Your task to perform on an android device: Go to CNN.com Image 0: 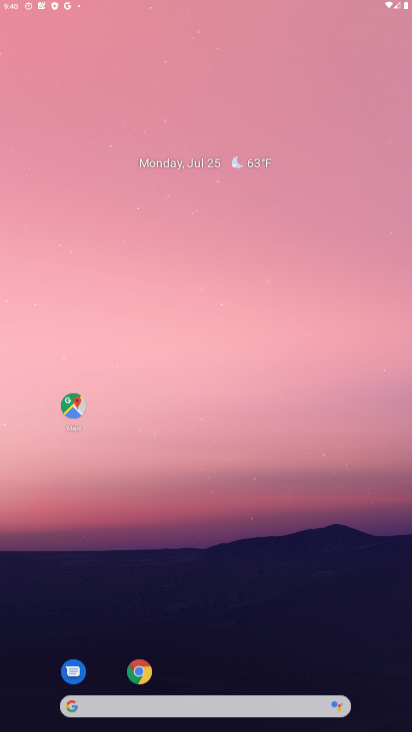
Step 0: click (295, 2)
Your task to perform on an android device: Go to CNN.com Image 1: 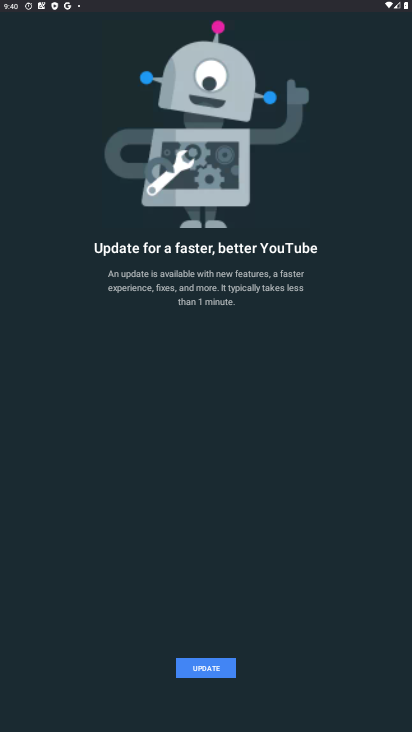
Step 1: press home button
Your task to perform on an android device: Go to CNN.com Image 2: 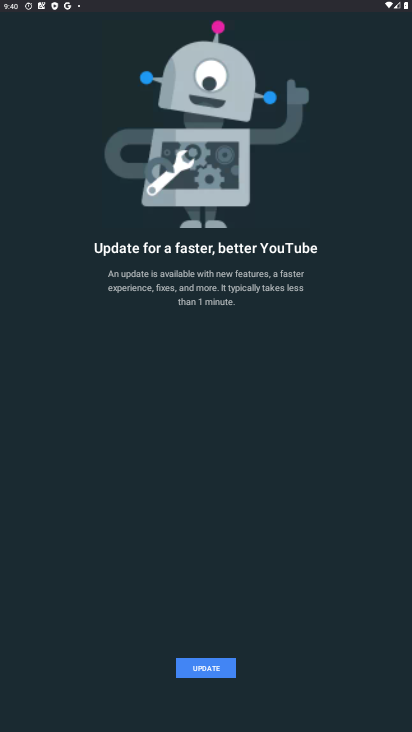
Step 2: press home button
Your task to perform on an android device: Go to CNN.com Image 3: 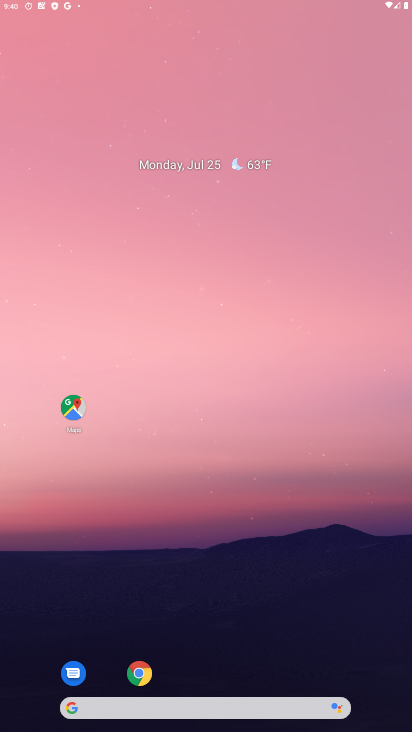
Step 3: drag from (156, 649) to (407, 6)
Your task to perform on an android device: Go to CNN.com Image 4: 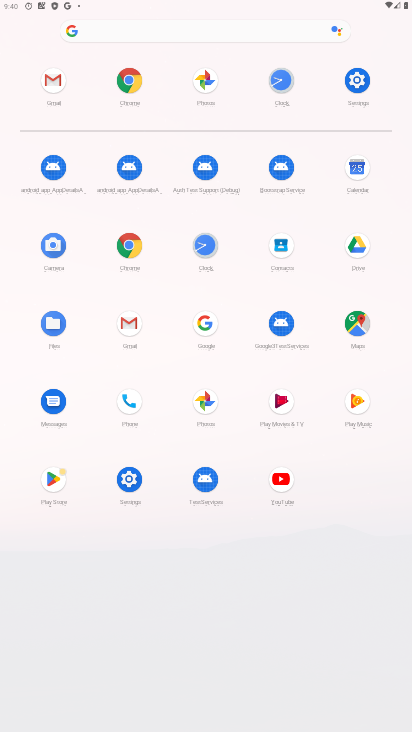
Step 4: click (128, 82)
Your task to perform on an android device: Go to CNN.com Image 5: 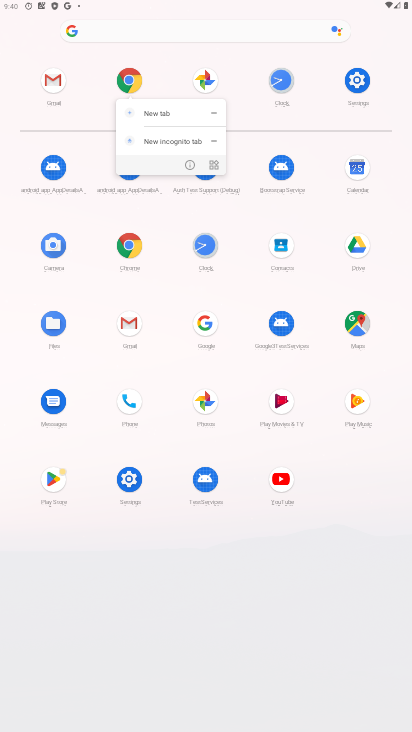
Step 5: click (189, 166)
Your task to perform on an android device: Go to CNN.com Image 6: 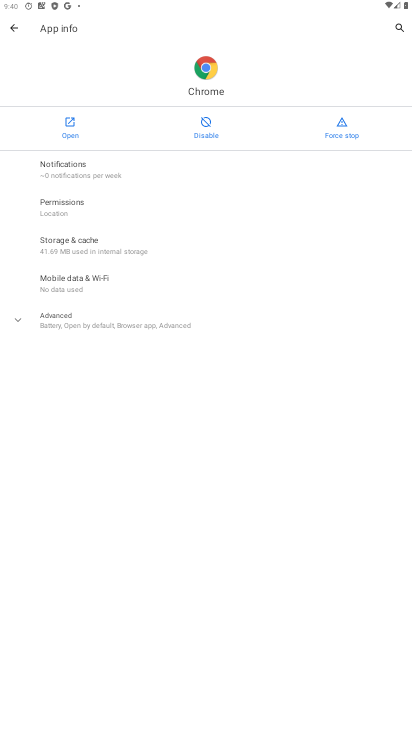
Step 6: click (56, 120)
Your task to perform on an android device: Go to CNN.com Image 7: 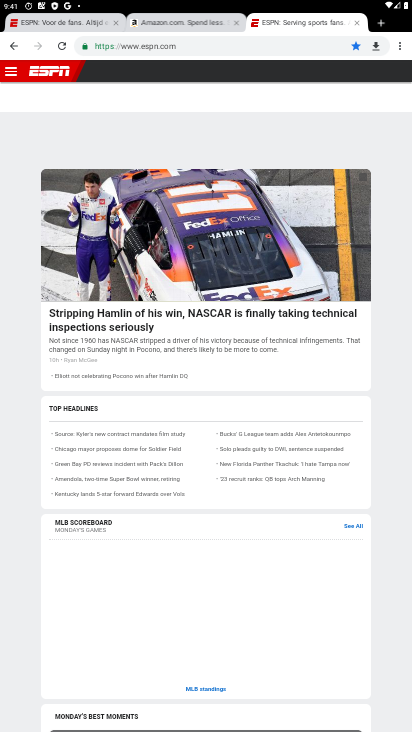
Step 7: drag from (192, 626) to (254, 301)
Your task to perform on an android device: Go to CNN.com Image 8: 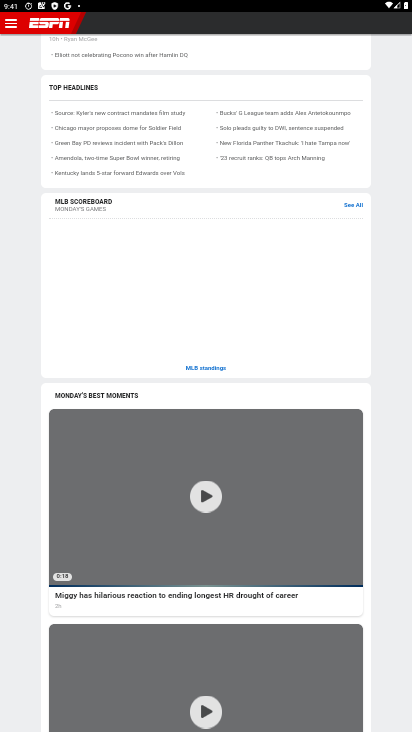
Step 8: drag from (207, 138) to (218, 537)
Your task to perform on an android device: Go to CNN.com Image 9: 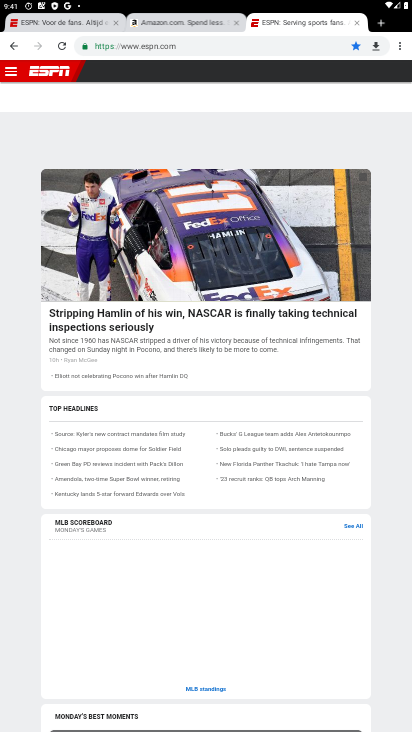
Step 9: click (148, 41)
Your task to perform on an android device: Go to CNN.com Image 10: 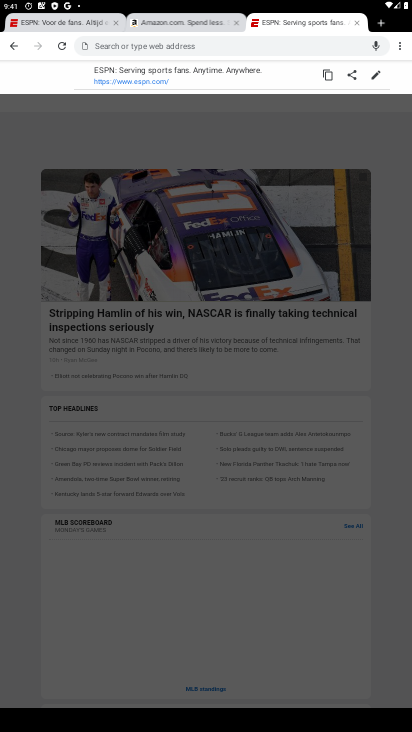
Step 10: type "cnn"
Your task to perform on an android device: Go to CNN.com Image 11: 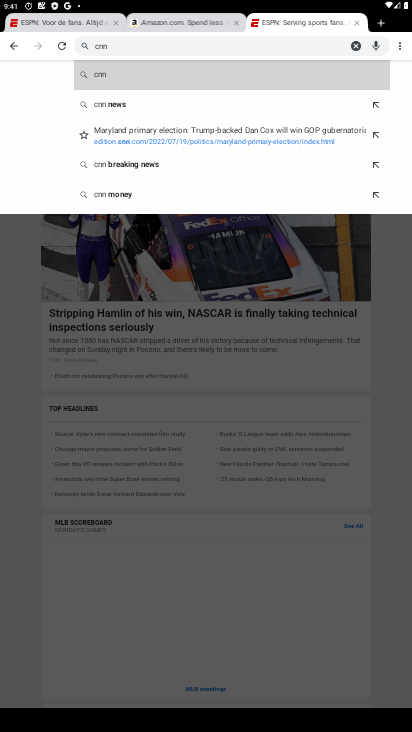
Step 11: click (101, 97)
Your task to perform on an android device: Go to CNN.com Image 12: 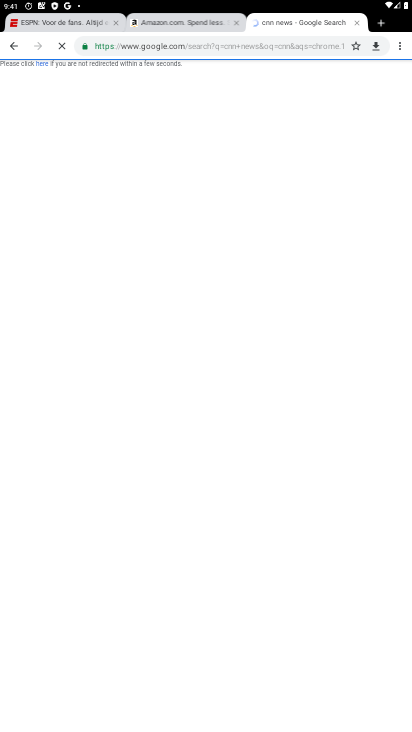
Step 12: drag from (203, 560) to (230, 276)
Your task to perform on an android device: Go to CNN.com Image 13: 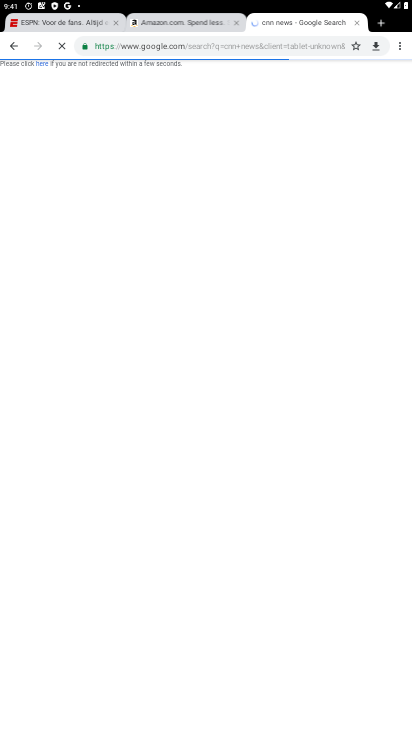
Step 13: drag from (271, 167) to (237, 570)
Your task to perform on an android device: Go to CNN.com Image 14: 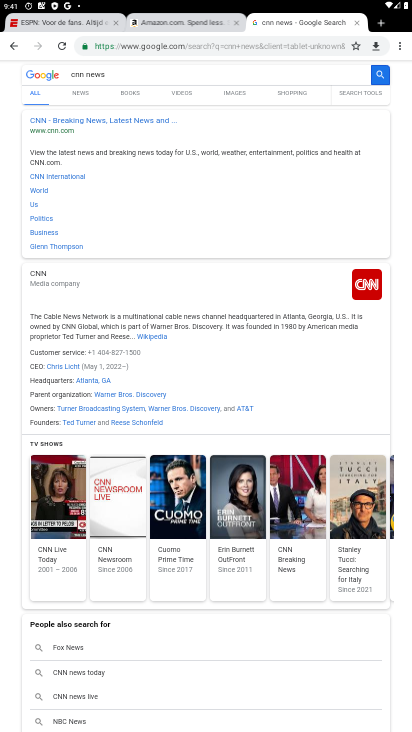
Step 14: click (64, 118)
Your task to perform on an android device: Go to CNN.com Image 15: 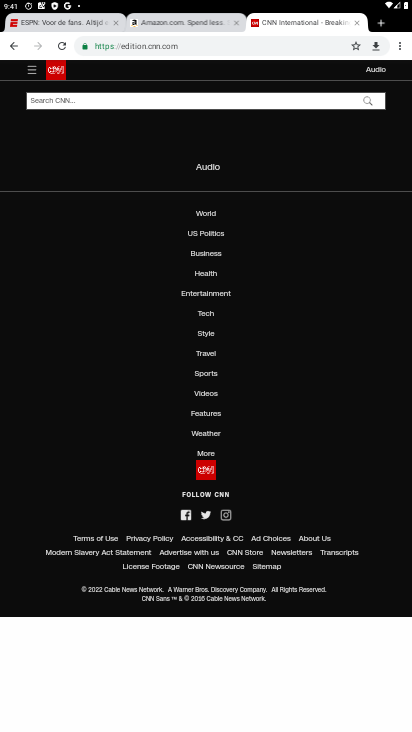
Step 15: task complete